Your task to perform on an android device: change notification settings in the gmail app Image 0: 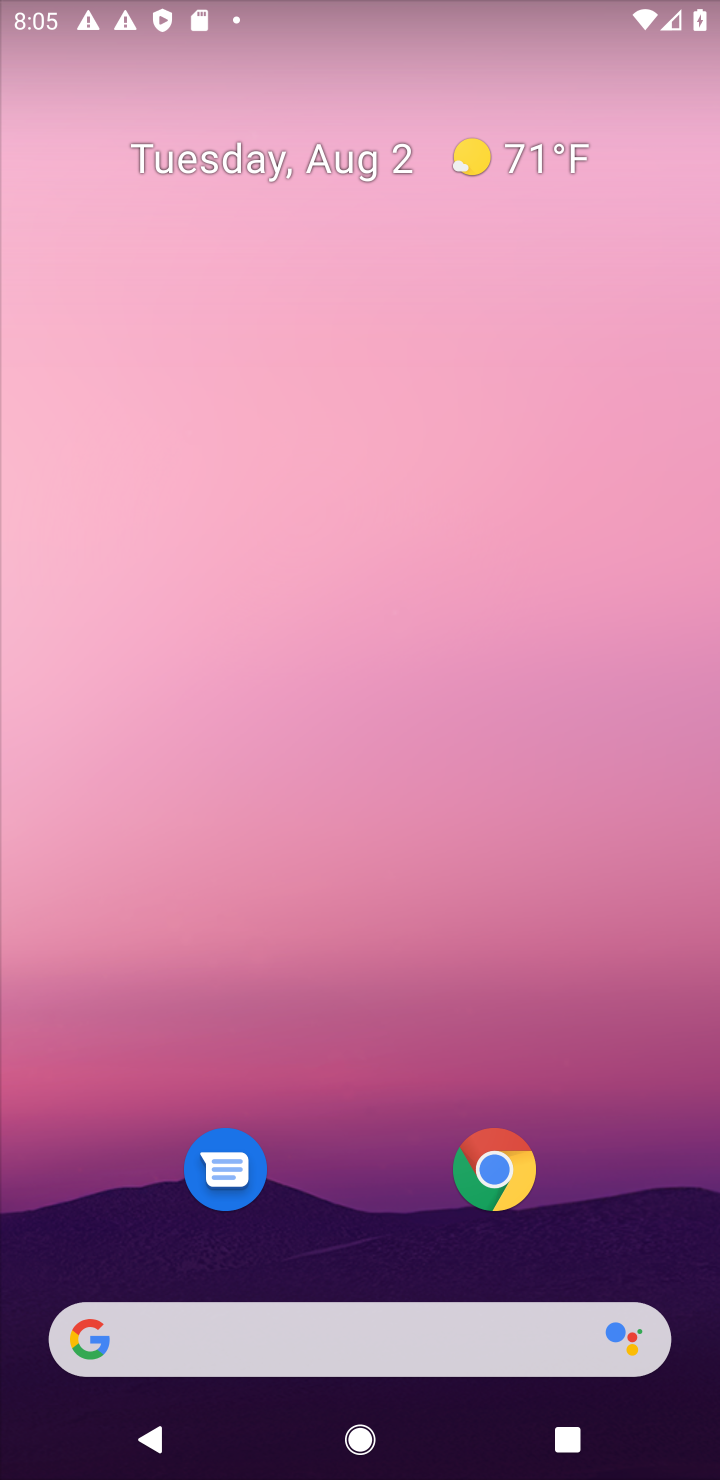
Step 0: drag from (398, 961) to (446, 17)
Your task to perform on an android device: change notification settings in the gmail app Image 1: 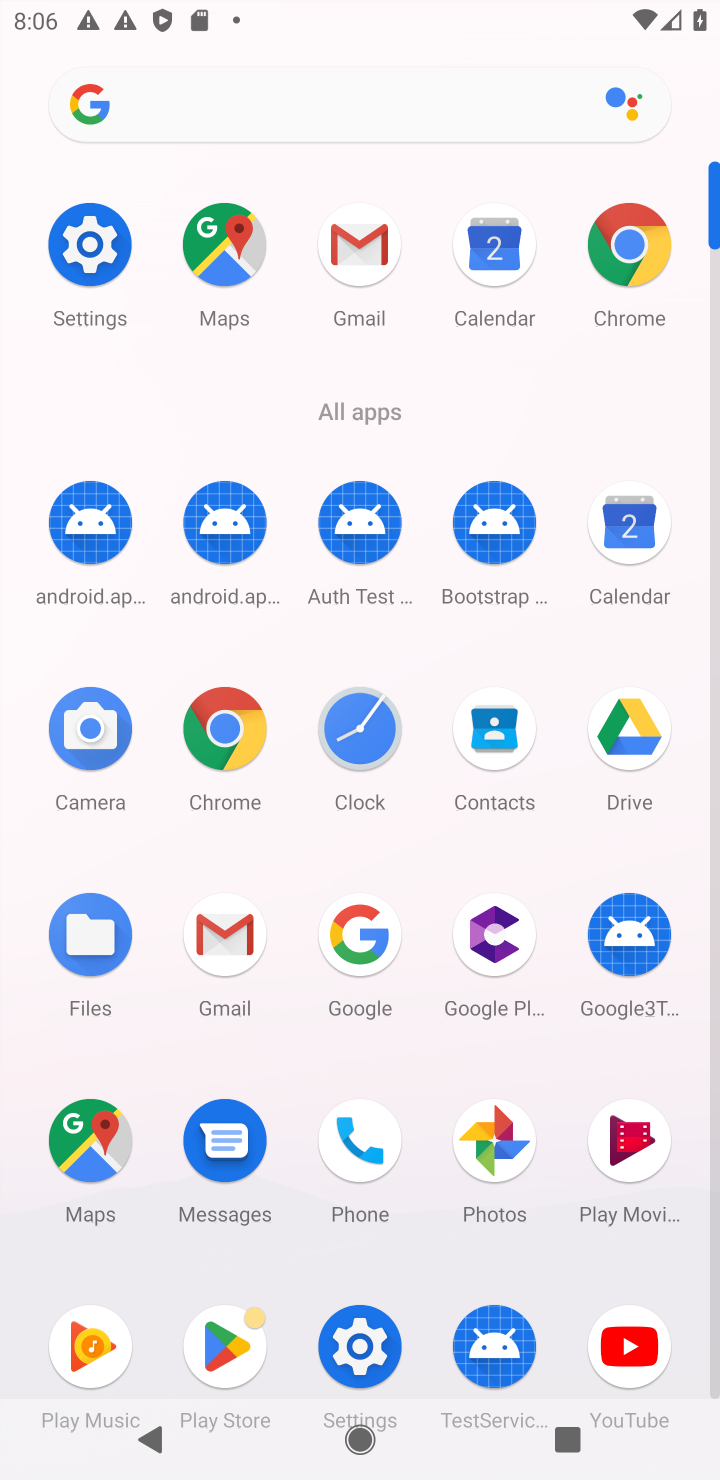
Step 1: click (356, 246)
Your task to perform on an android device: change notification settings in the gmail app Image 2: 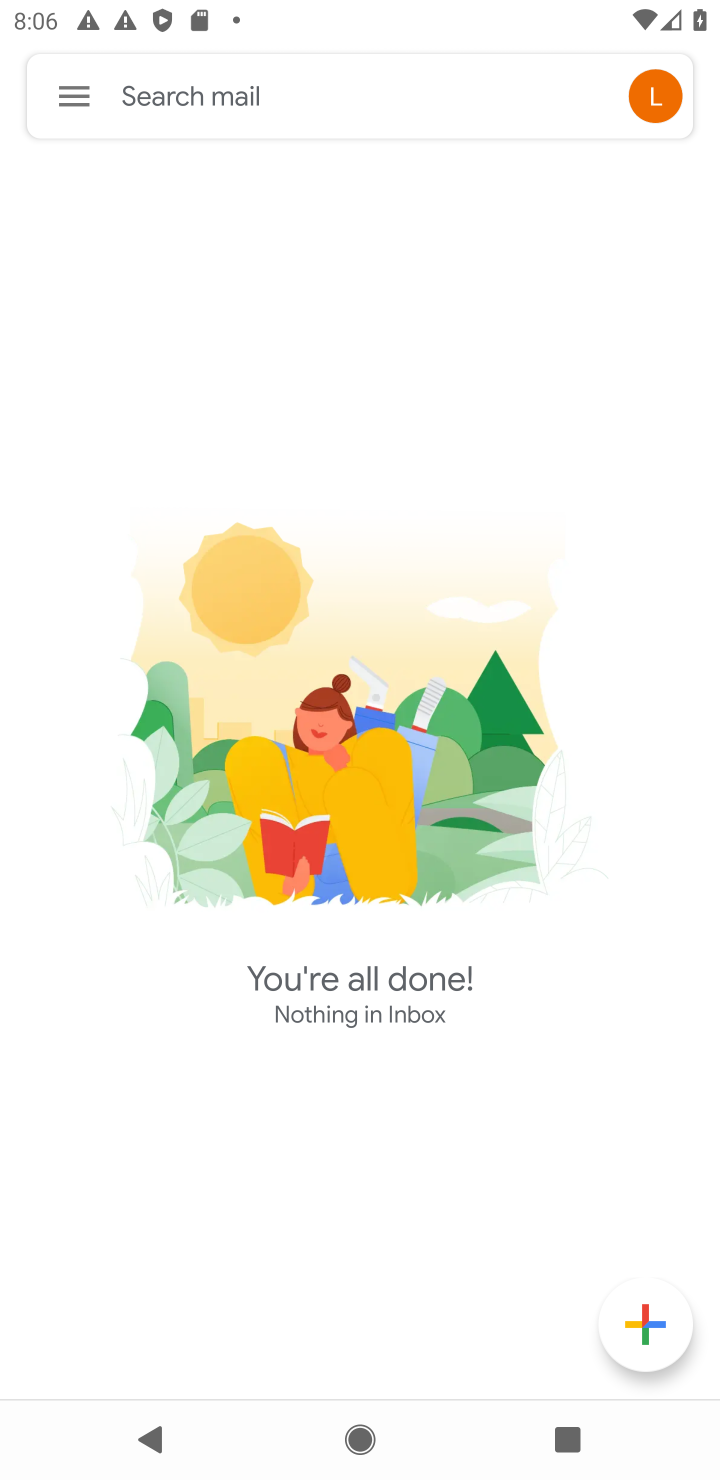
Step 2: click (73, 99)
Your task to perform on an android device: change notification settings in the gmail app Image 3: 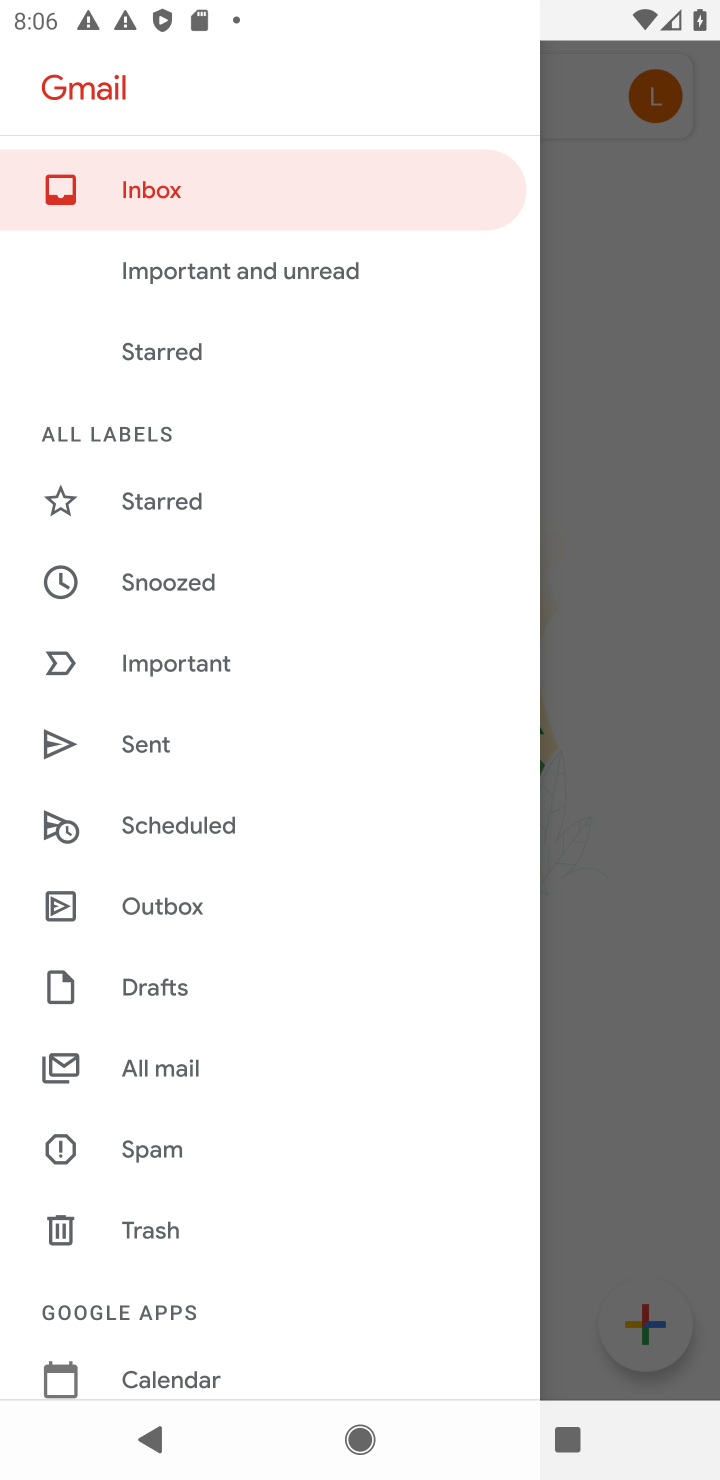
Step 3: drag from (268, 1065) to (324, 542)
Your task to perform on an android device: change notification settings in the gmail app Image 4: 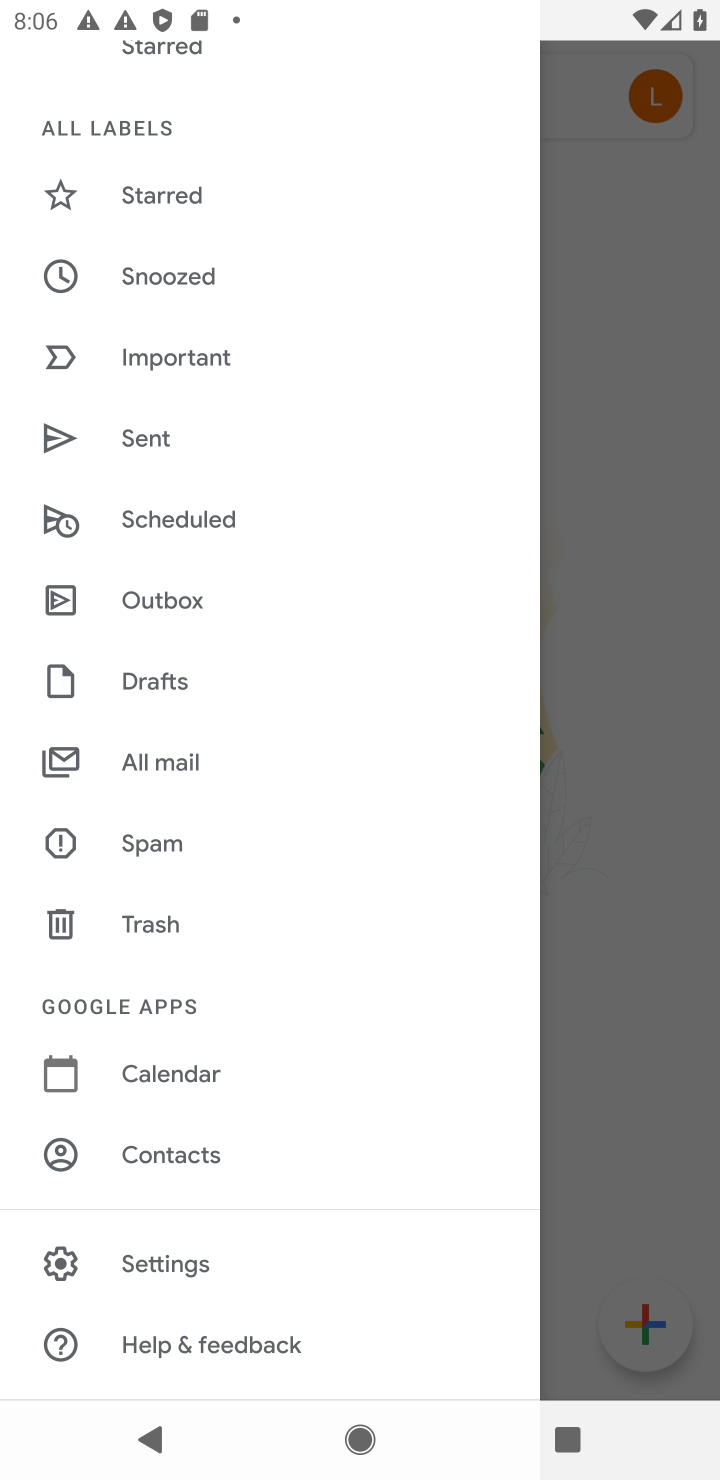
Step 4: click (171, 1255)
Your task to perform on an android device: change notification settings in the gmail app Image 5: 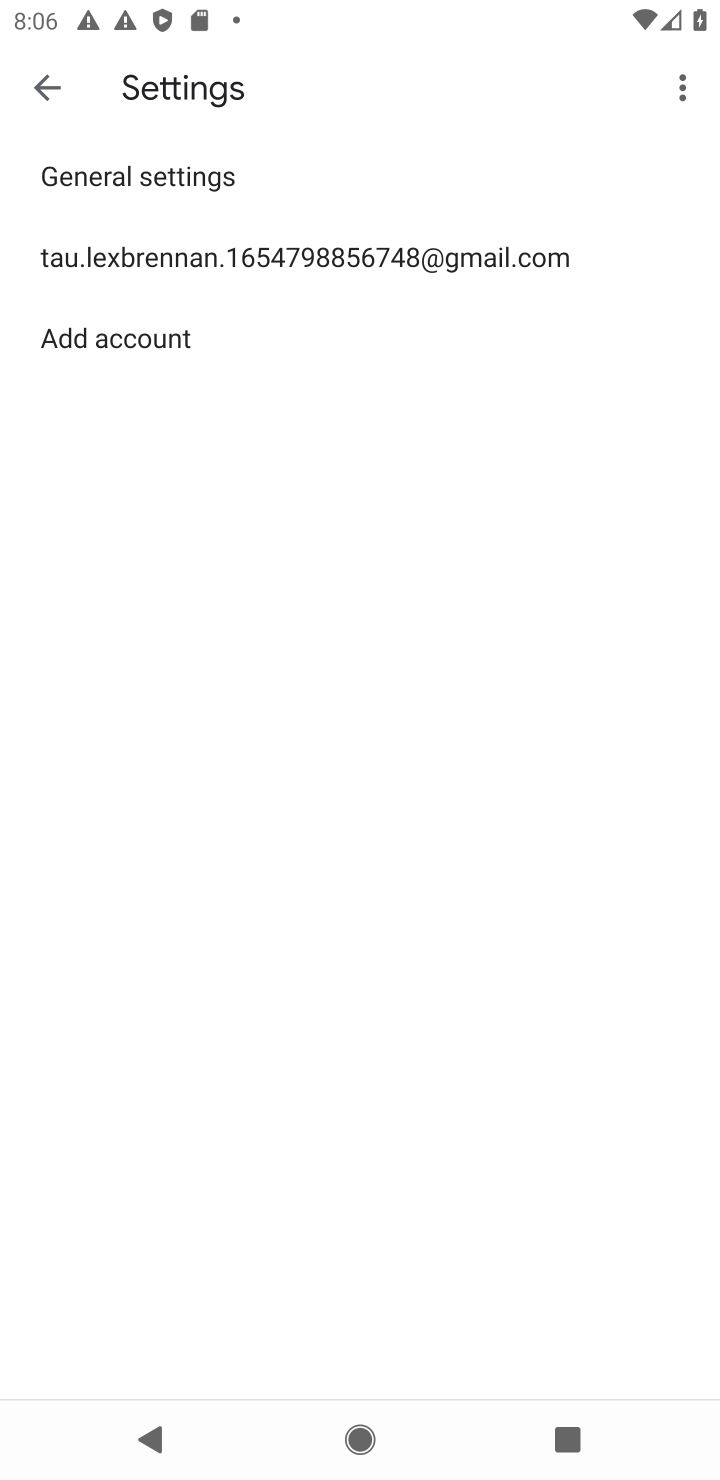
Step 5: click (417, 234)
Your task to perform on an android device: change notification settings in the gmail app Image 6: 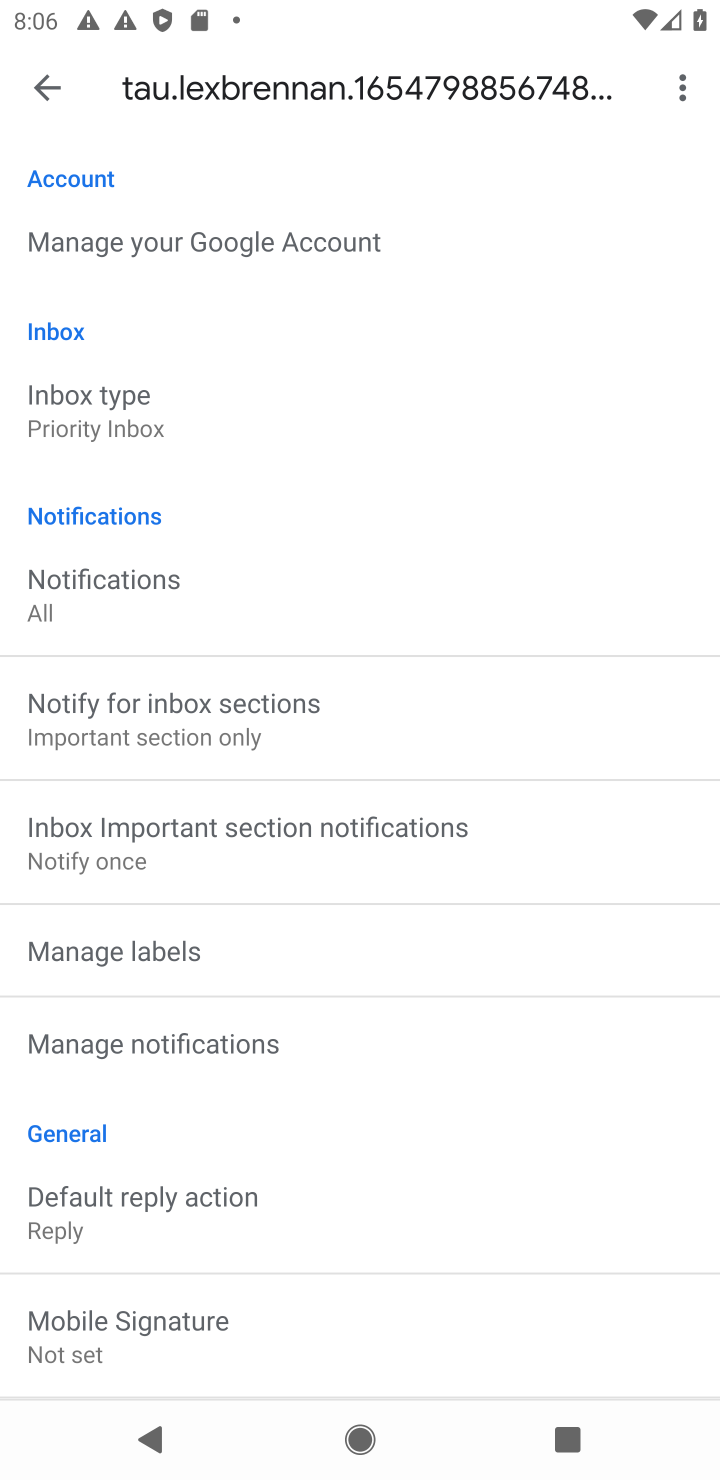
Step 6: click (268, 1027)
Your task to perform on an android device: change notification settings in the gmail app Image 7: 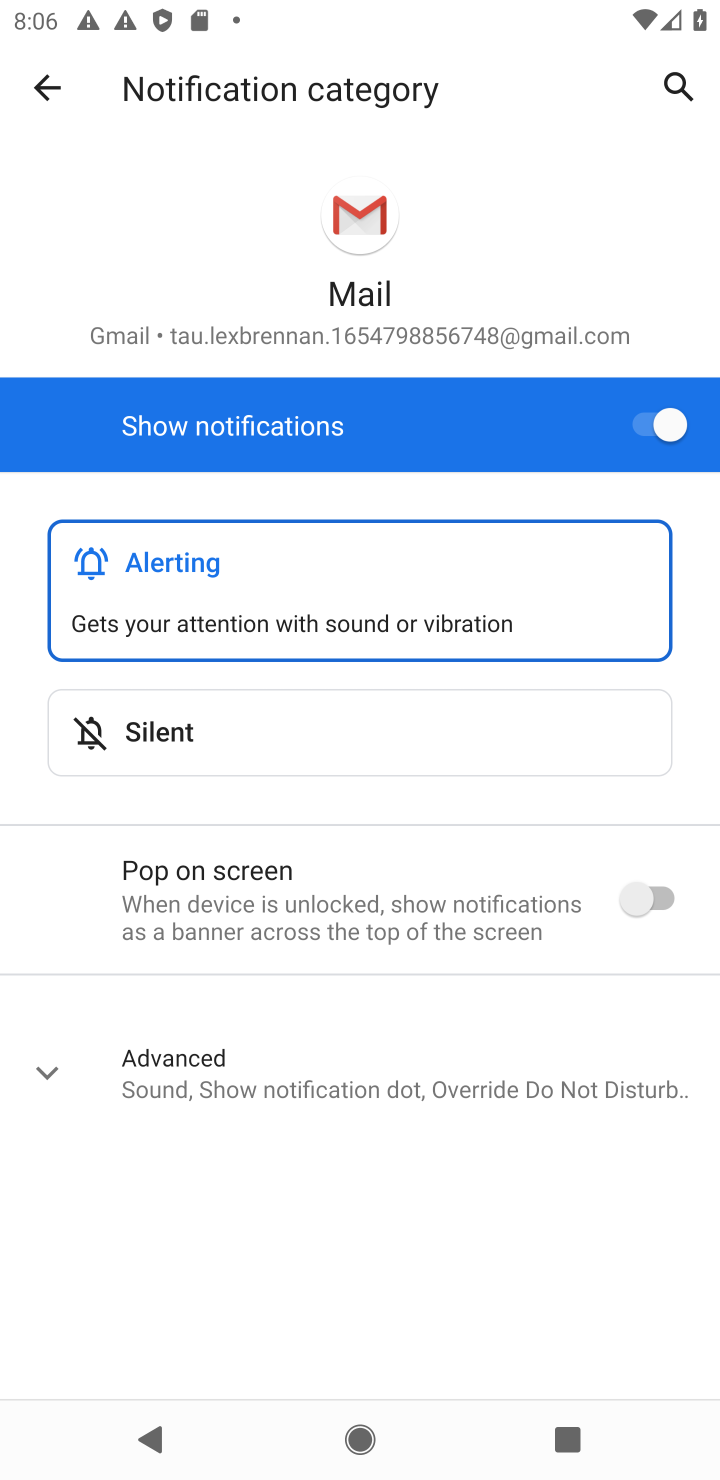
Step 7: click (662, 424)
Your task to perform on an android device: change notification settings in the gmail app Image 8: 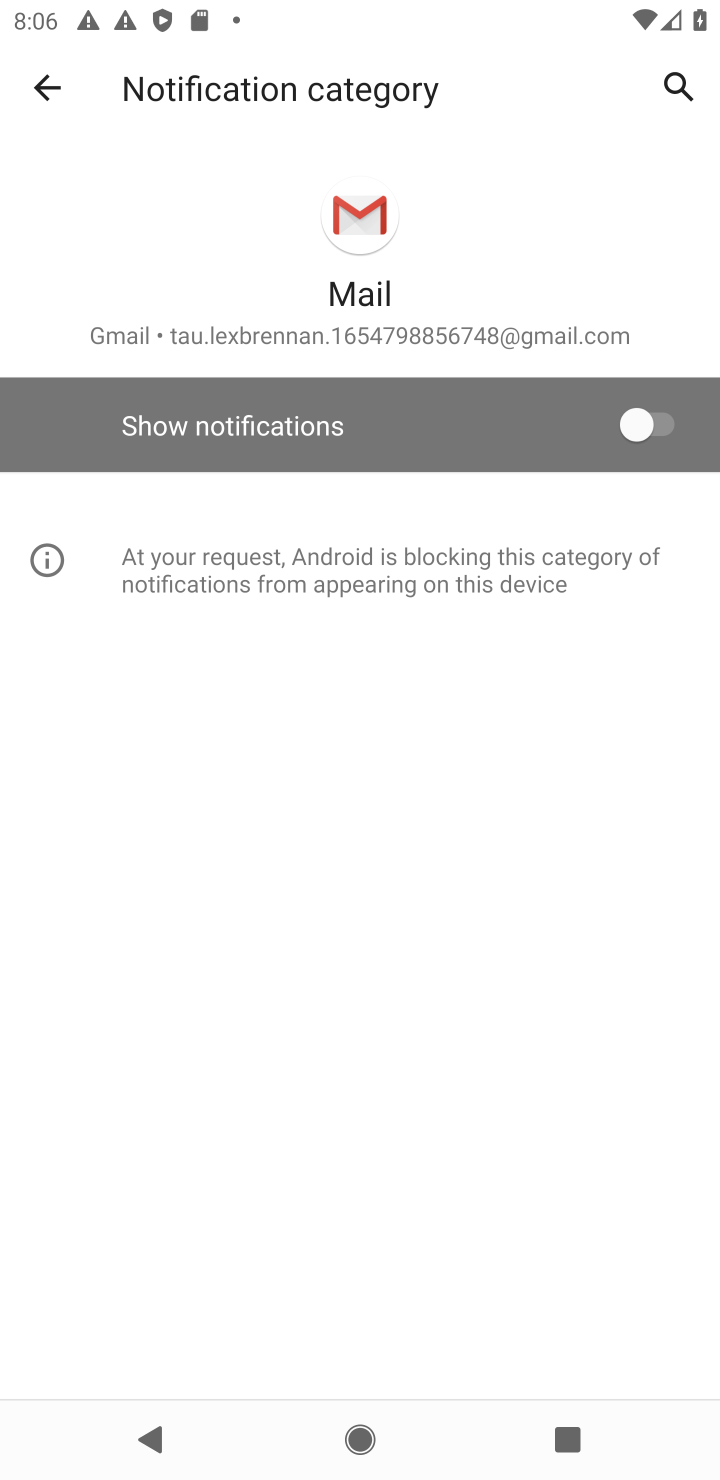
Step 8: task complete